Your task to perform on an android device: change timer sound Image 0: 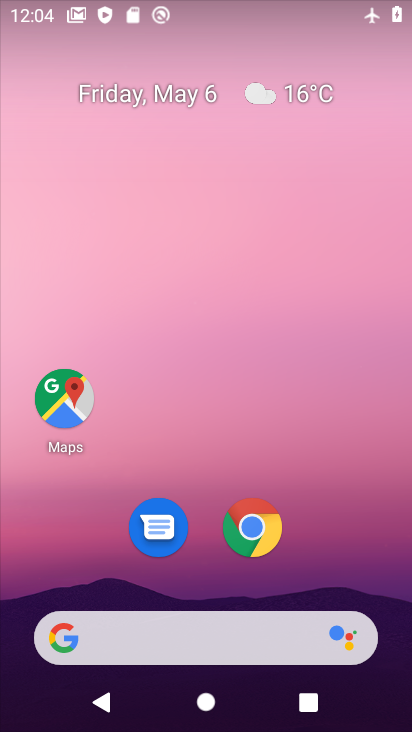
Step 0: drag from (339, 512) to (125, 135)
Your task to perform on an android device: change timer sound Image 1: 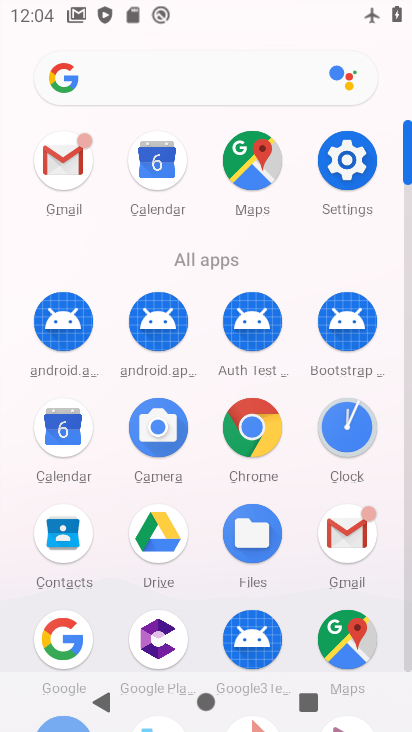
Step 1: click (359, 428)
Your task to perform on an android device: change timer sound Image 2: 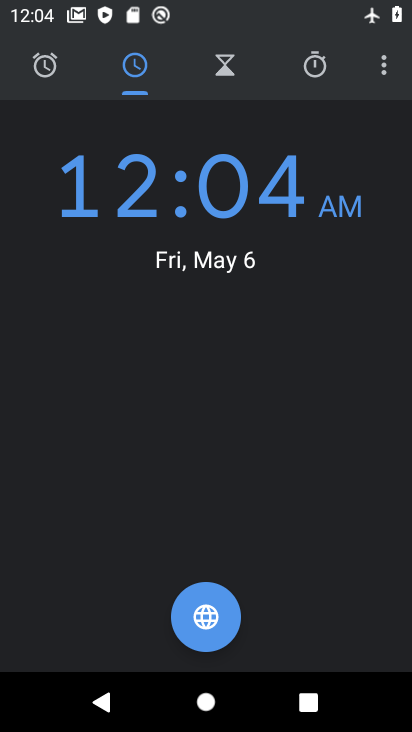
Step 2: click (386, 72)
Your task to perform on an android device: change timer sound Image 3: 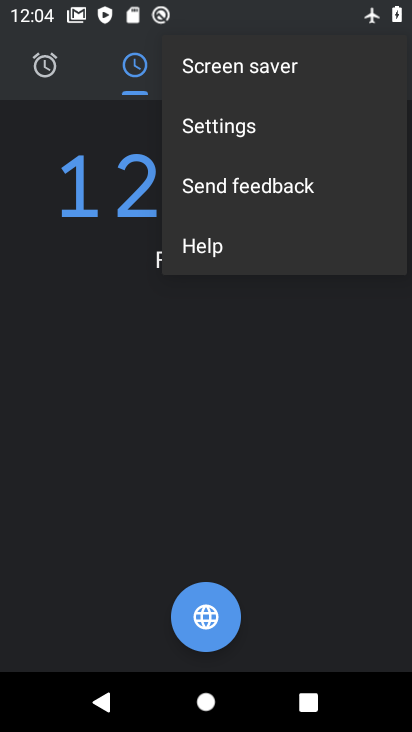
Step 3: click (237, 128)
Your task to perform on an android device: change timer sound Image 4: 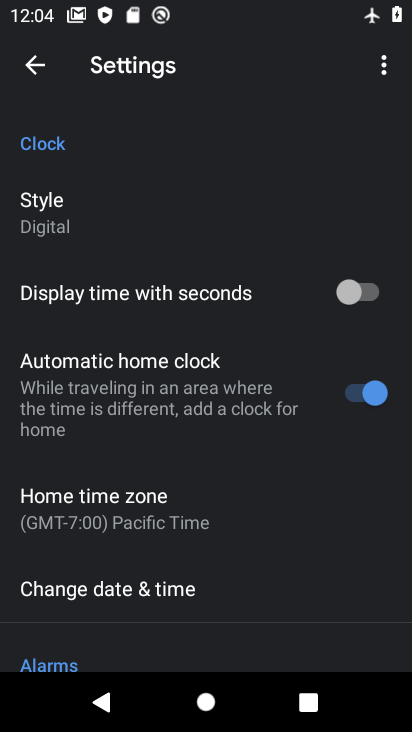
Step 4: drag from (134, 611) to (134, 141)
Your task to perform on an android device: change timer sound Image 5: 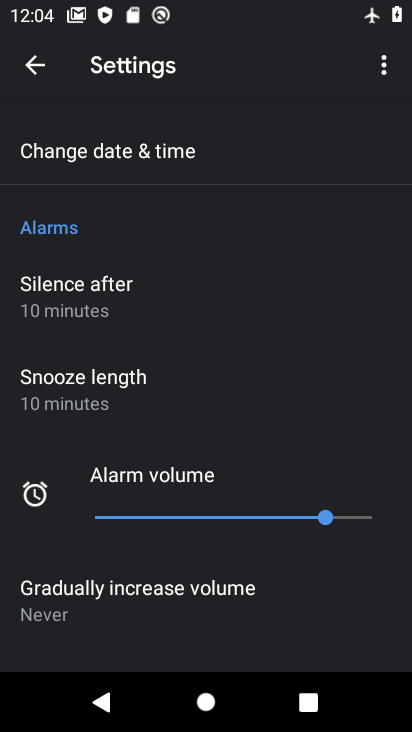
Step 5: drag from (132, 580) to (123, 243)
Your task to perform on an android device: change timer sound Image 6: 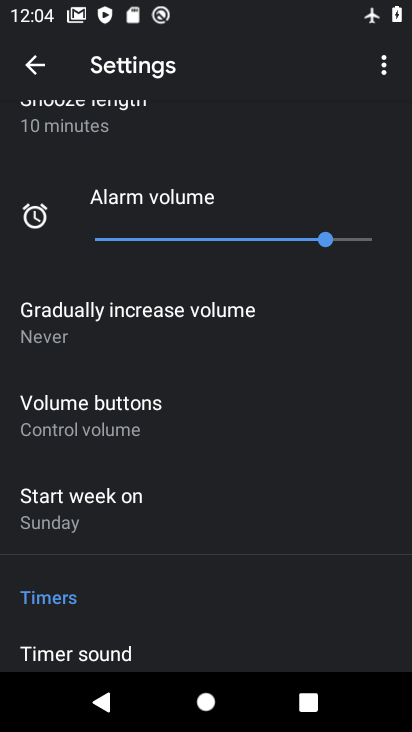
Step 6: drag from (117, 590) to (122, 360)
Your task to perform on an android device: change timer sound Image 7: 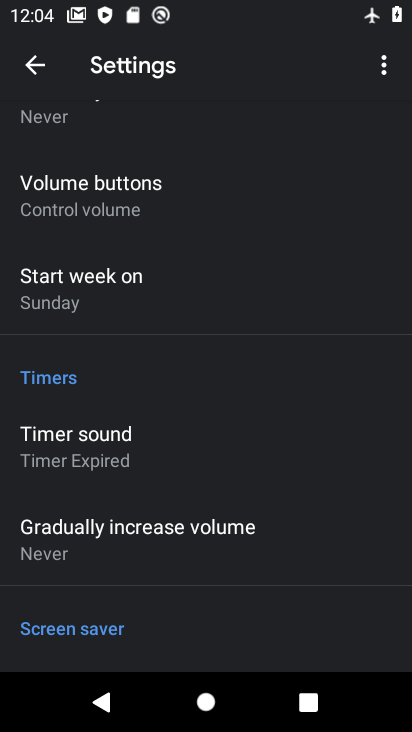
Step 7: click (56, 442)
Your task to perform on an android device: change timer sound Image 8: 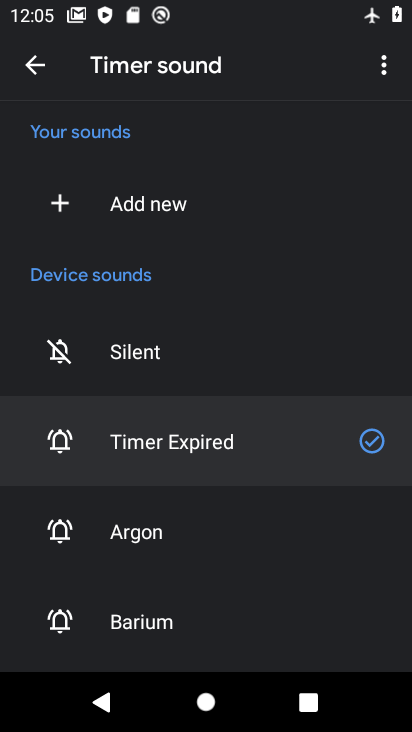
Step 8: click (136, 625)
Your task to perform on an android device: change timer sound Image 9: 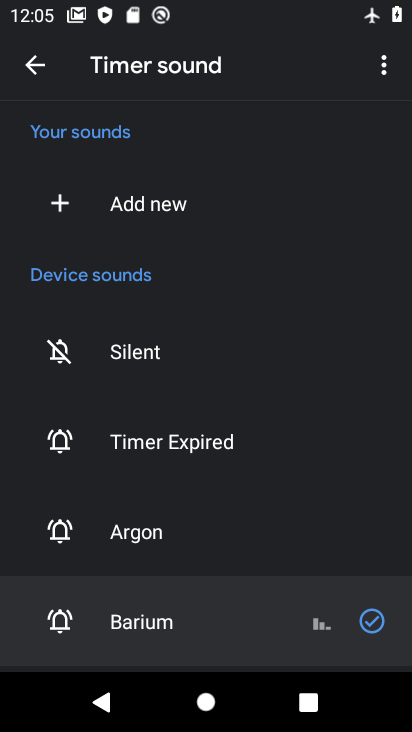
Step 9: task complete